Your task to perform on an android device: clear history in the chrome app Image 0: 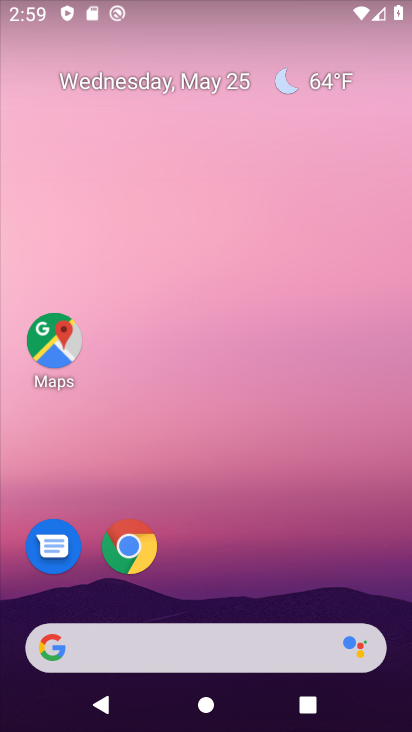
Step 0: drag from (211, 597) to (272, 72)
Your task to perform on an android device: clear history in the chrome app Image 1: 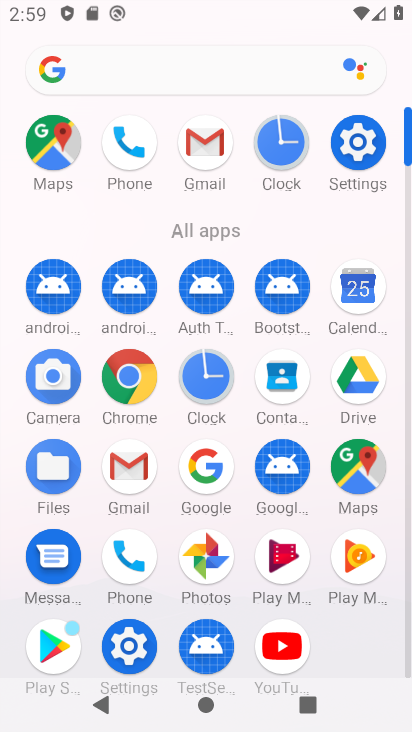
Step 1: click (139, 384)
Your task to perform on an android device: clear history in the chrome app Image 2: 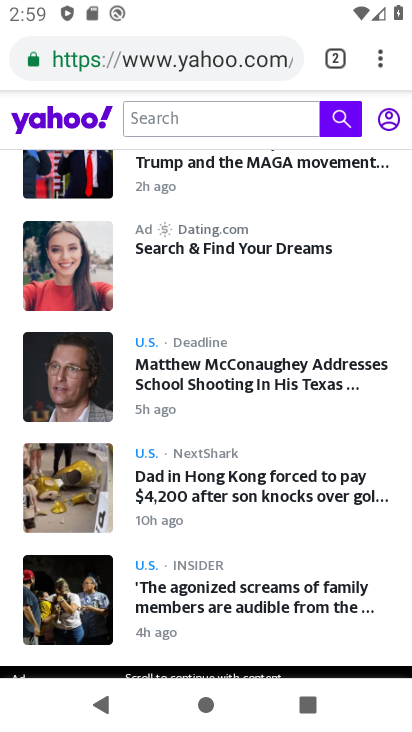
Step 2: click (385, 61)
Your task to perform on an android device: clear history in the chrome app Image 3: 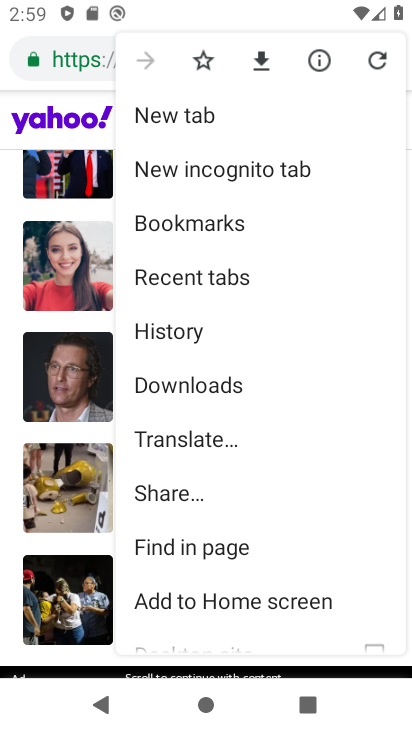
Step 3: drag from (305, 594) to (316, 323)
Your task to perform on an android device: clear history in the chrome app Image 4: 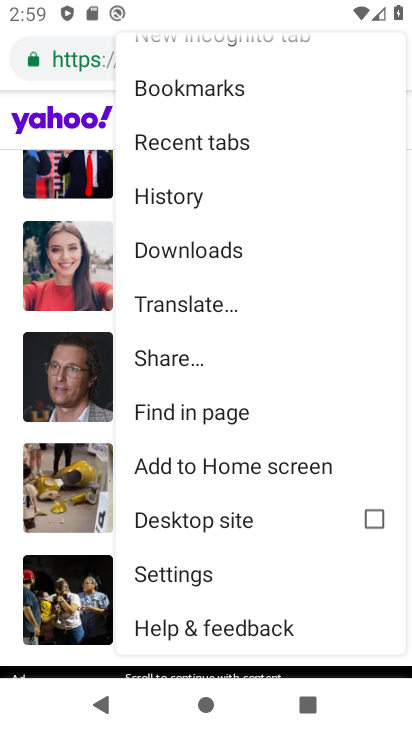
Step 4: click (174, 579)
Your task to perform on an android device: clear history in the chrome app Image 5: 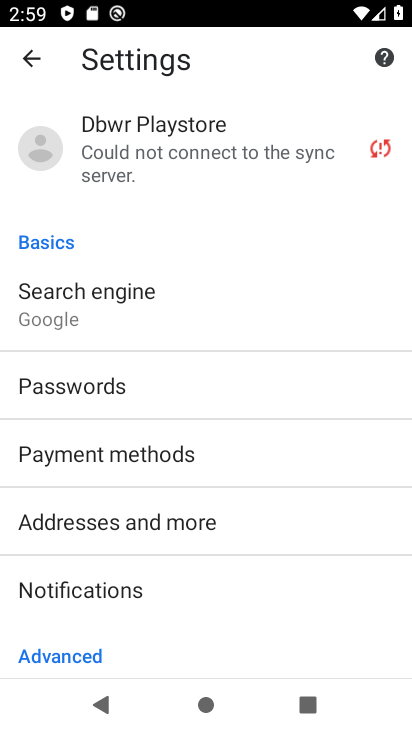
Step 5: press back button
Your task to perform on an android device: clear history in the chrome app Image 6: 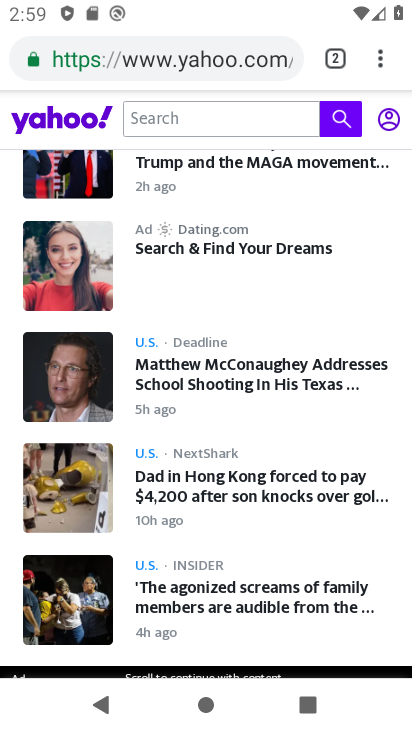
Step 6: click (374, 63)
Your task to perform on an android device: clear history in the chrome app Image 7: 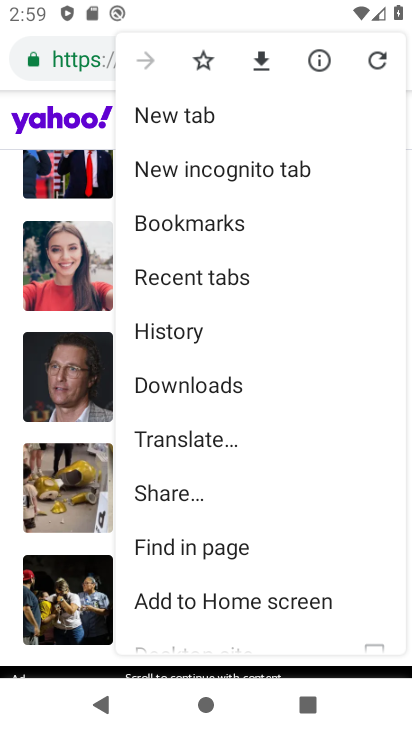
Step 7: click (180, 339)
Your task to perform on an android device: clear history in the chrome app Image 8: 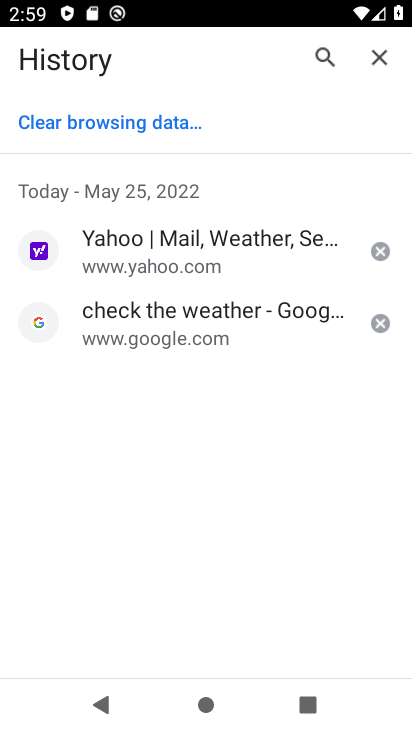
Step 8: click (143, 116)
Your task to perform on an android device: clear history in the chrome app Image 9: 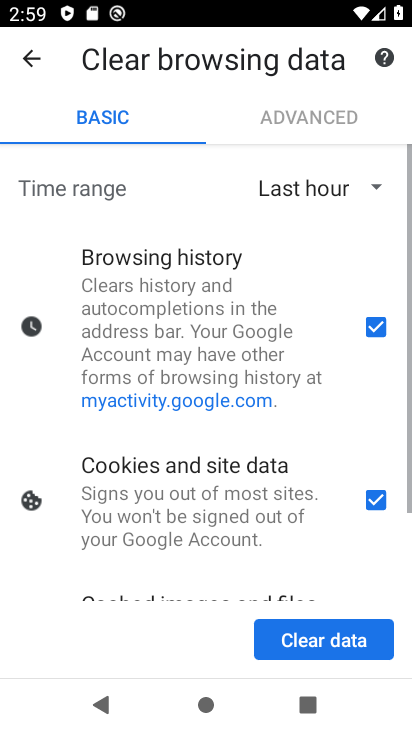
Step 9: click (286, 641)
Your task to perform on an android device: clear history in the chrome app Image 10: 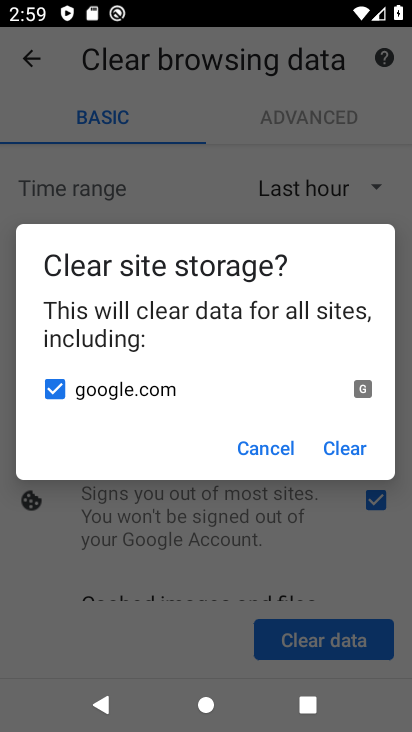
Step 10: click (330, 443)
Your task to perform on an android device: clear history in the chrome app Image 11: 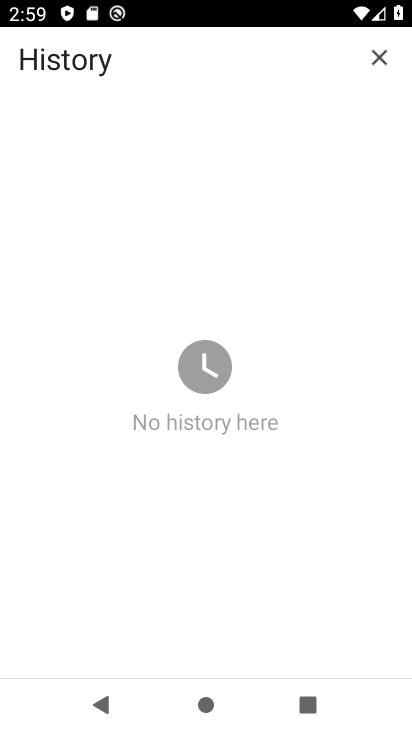
Step 11: task complete